Your task to perform on an android device: Open internet settings Image 0: 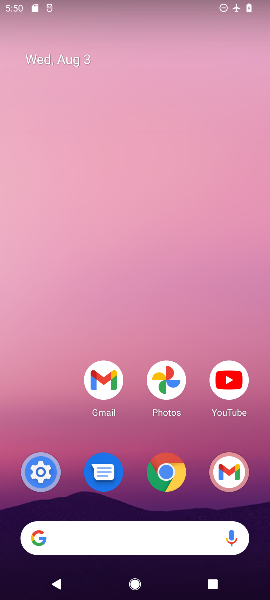
Step 0: drag from (210, 513) to (54, 75)
Your task to perform on an android device: Open internet settings Image 1: 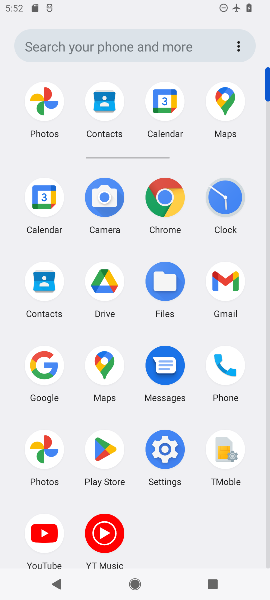
Step 1: click (166, 459)
Your task to perform on an android device: Open internet settings Image 2: 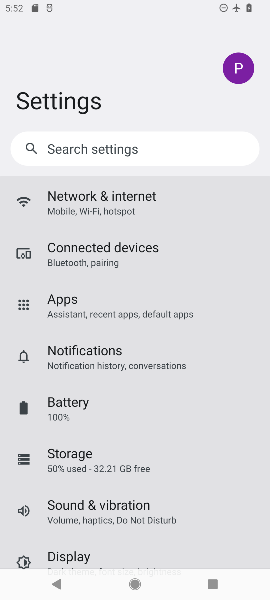
Step 2: click (90, 199)
Your task to perform on an android device: Open internet settings Image 3: 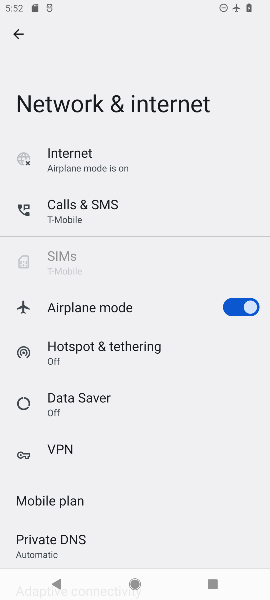
Step 3: click (94, 159)
Your task to perform on an android device: Open internet settings Image 4: 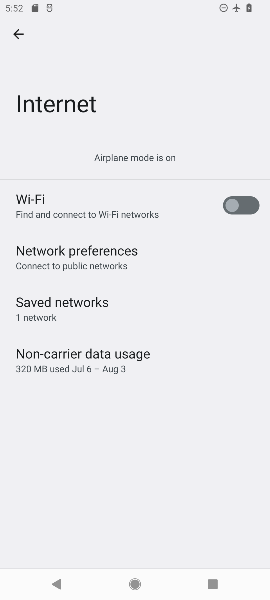
Step 4: task complete